Your task to perform on an android device: empty trash in google photos Image 0: 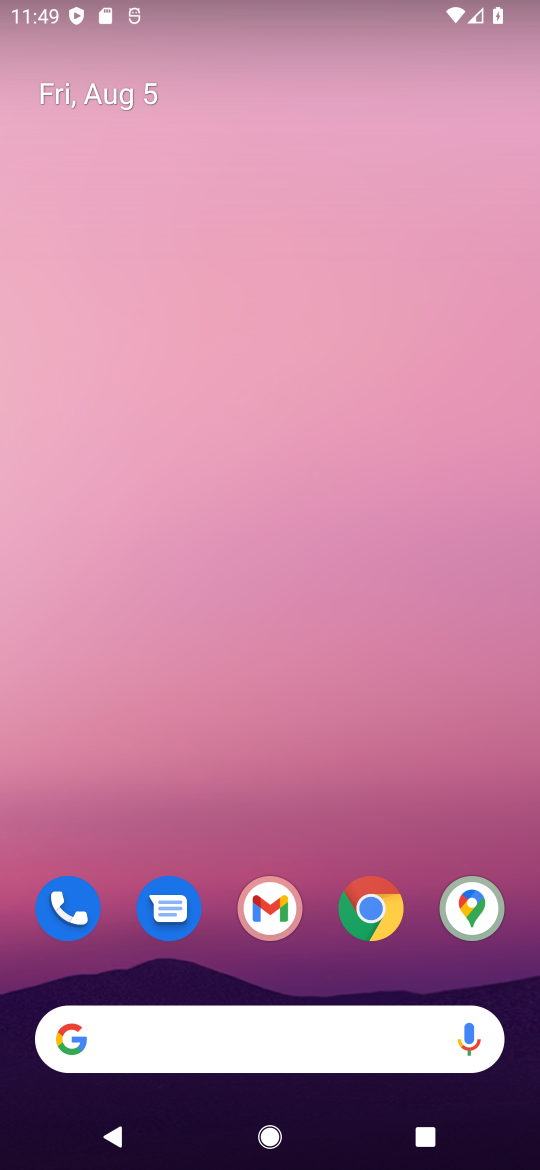
Step 0: drag from (315, 962) to (290, 218)
Your task to perform on an android device: empty trash in google photos Image 1: 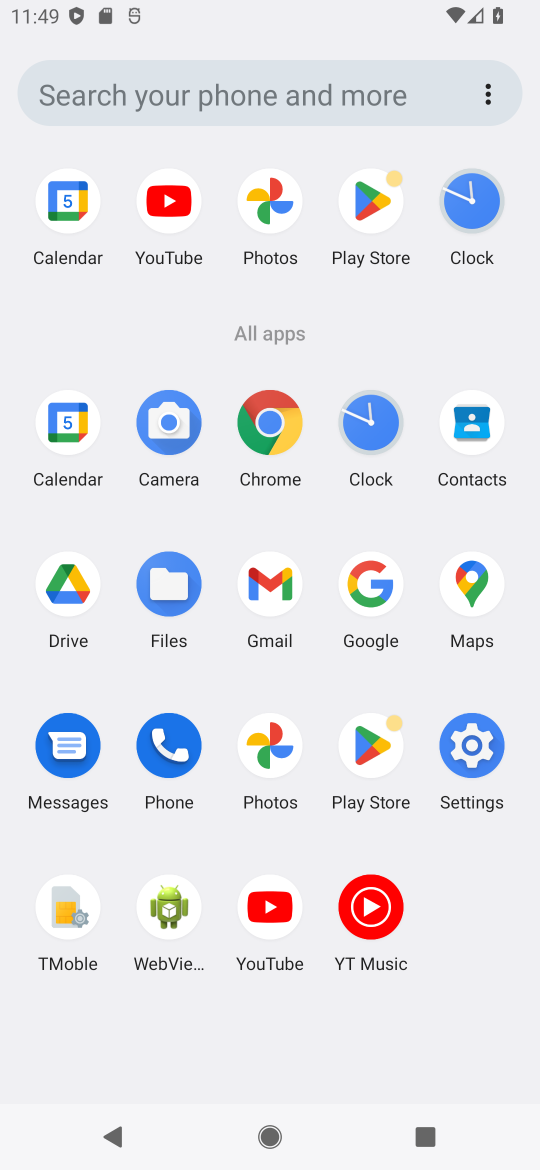
Step 1: click (268, 741)
Your task to perform on an android device: empty trash in google photos Image 2: 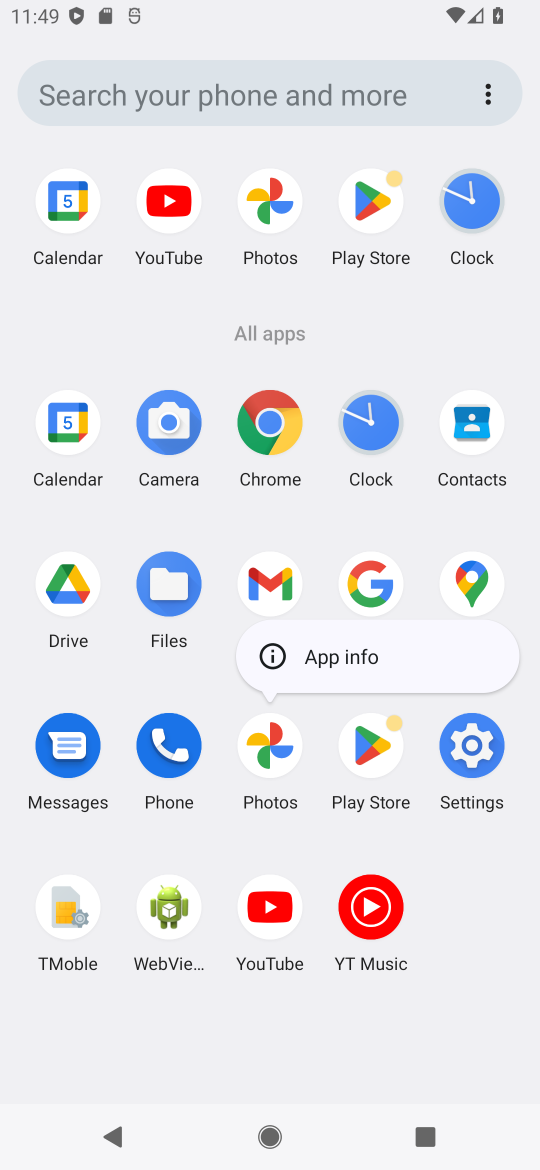
Step 2: click (268, 742)
Your task to perform on an android device: empty trash in google photos Image 3: 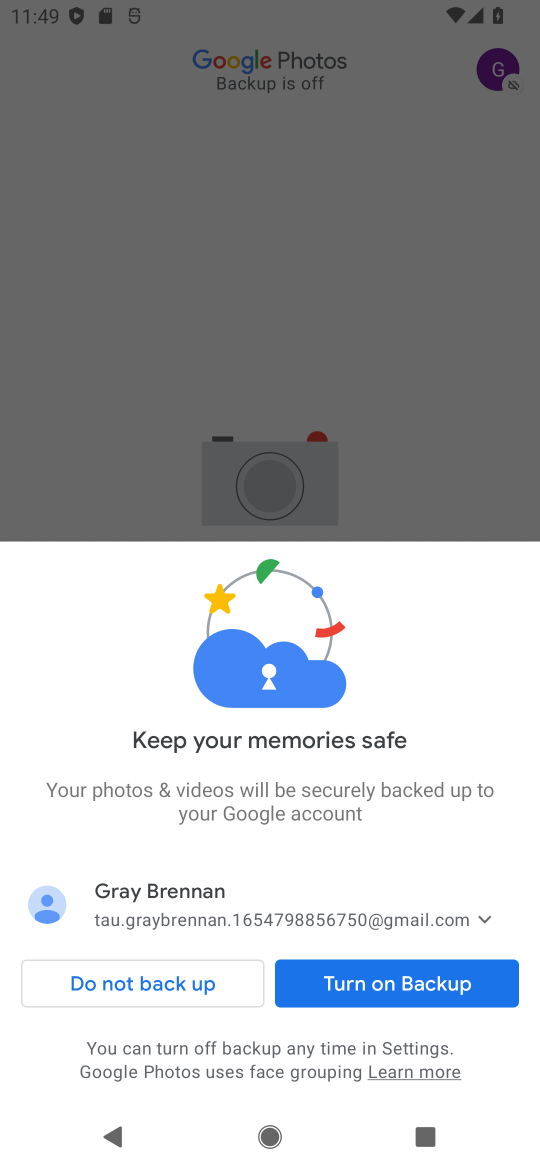
Step 3: click (358, 972)
Your task to perform on an android device: empty trash in google photos Image 4: 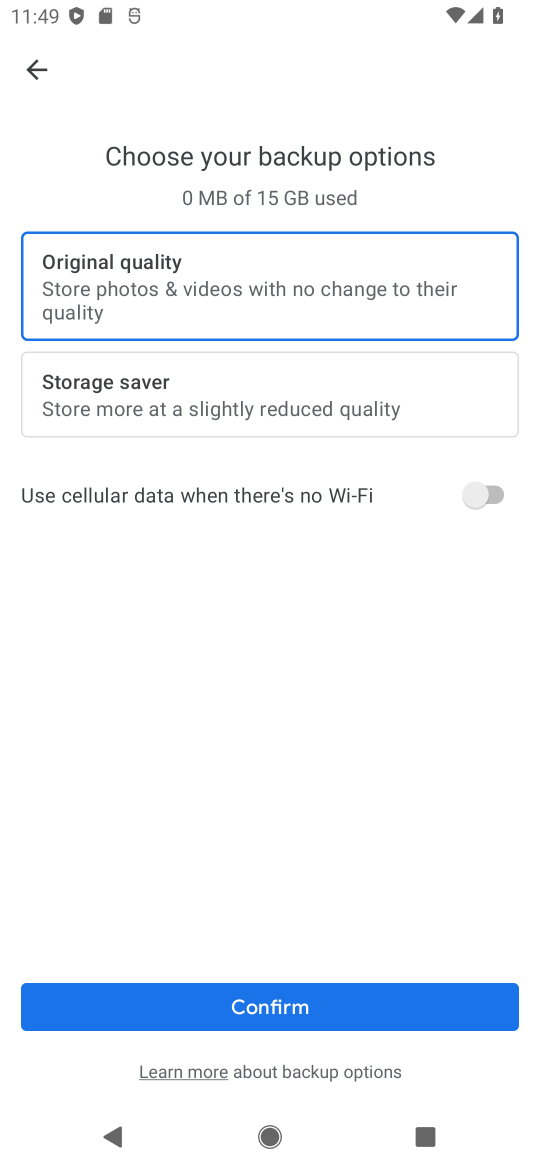
Step 4: click (309, 1000)
Your task to perform on an android device: empty trash in google photos Image 5: 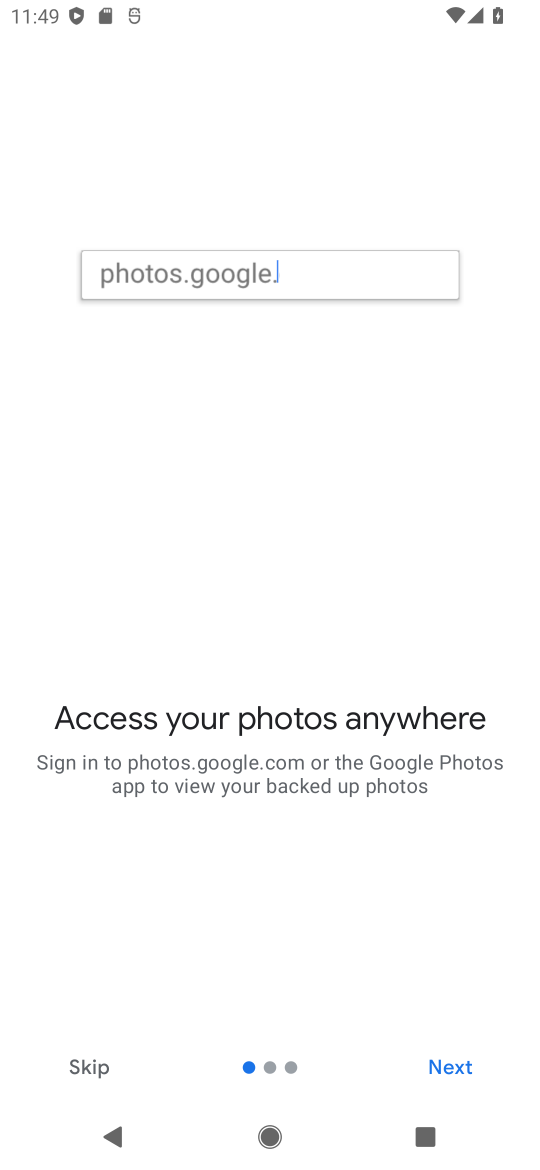
Step 5: click (456, 1041)
Your task to perform on an android device: empty trash in google photos Image 6: 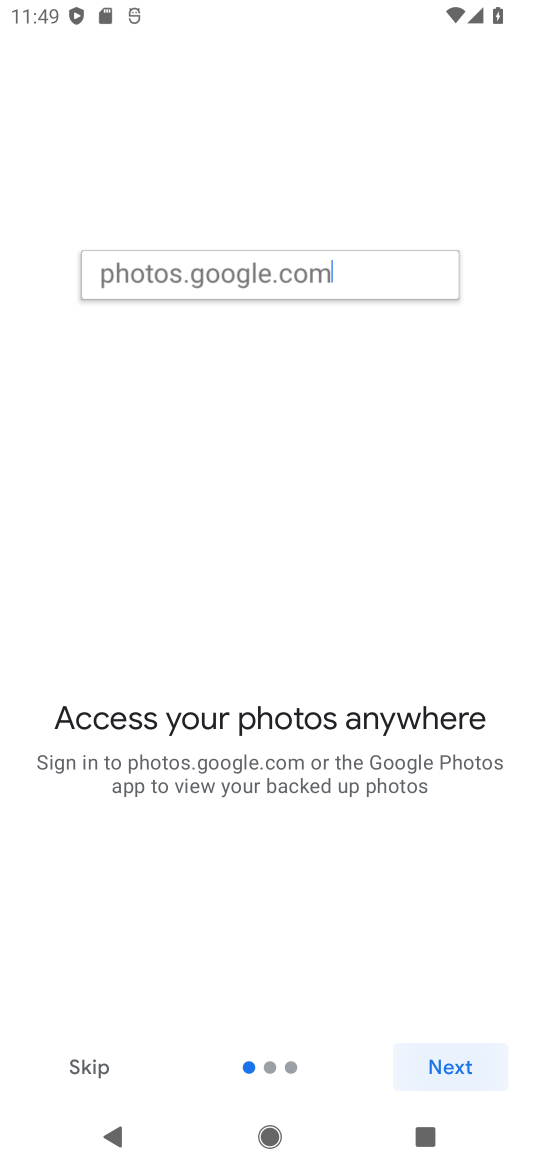
Step 6: click (456, 1041)
Your task to perform on an android device: empty trash in google photos Image 7: 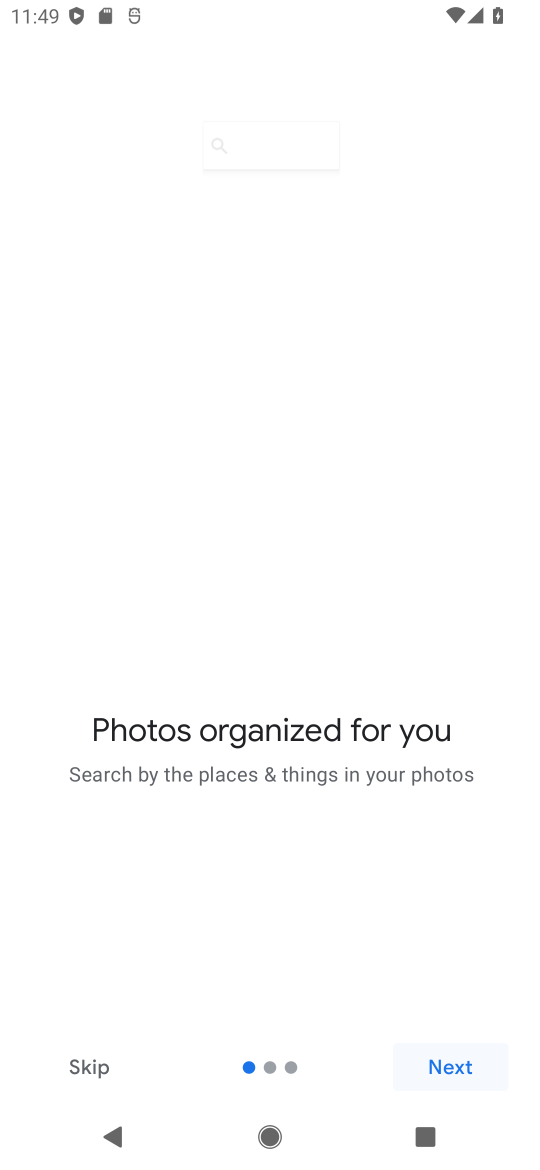
Step 7: click (456, 1039)
Your task to perform on an android device: empty trash in google photos Image 8: 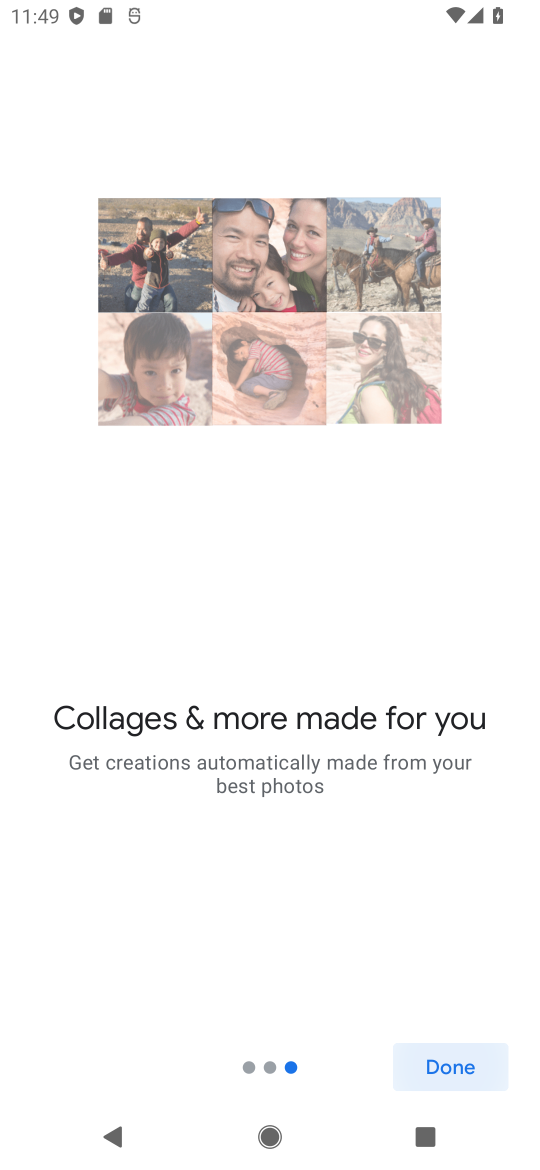
Step 8: click (456, 1039)
Your task to perform on an android device: empty trash in google photos Image 9: 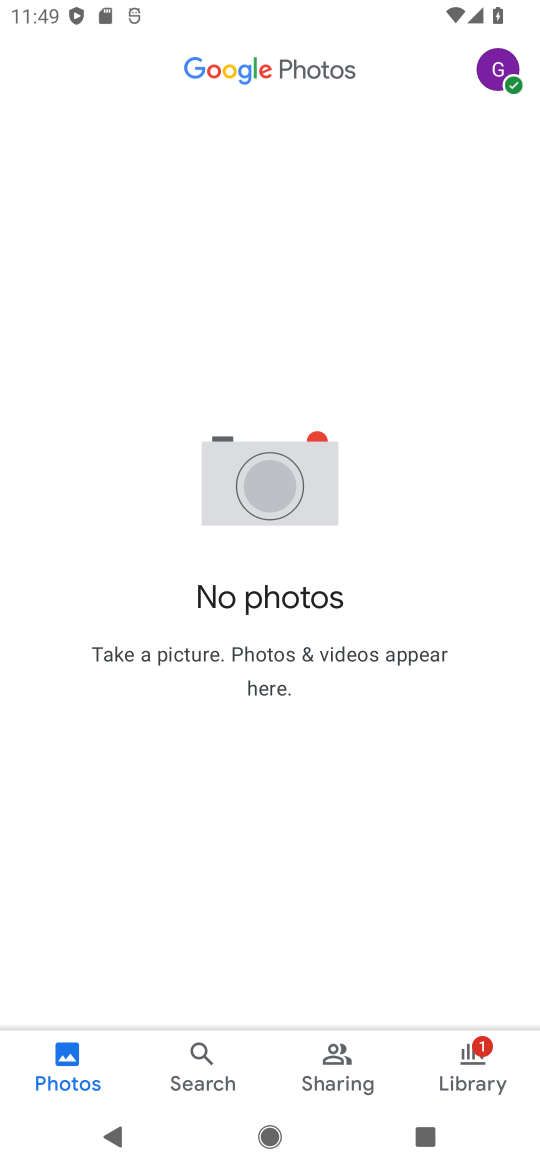
Step 9: click (468, 1082)
Your task to perform on an android device: empty trash in google photos Image 10: 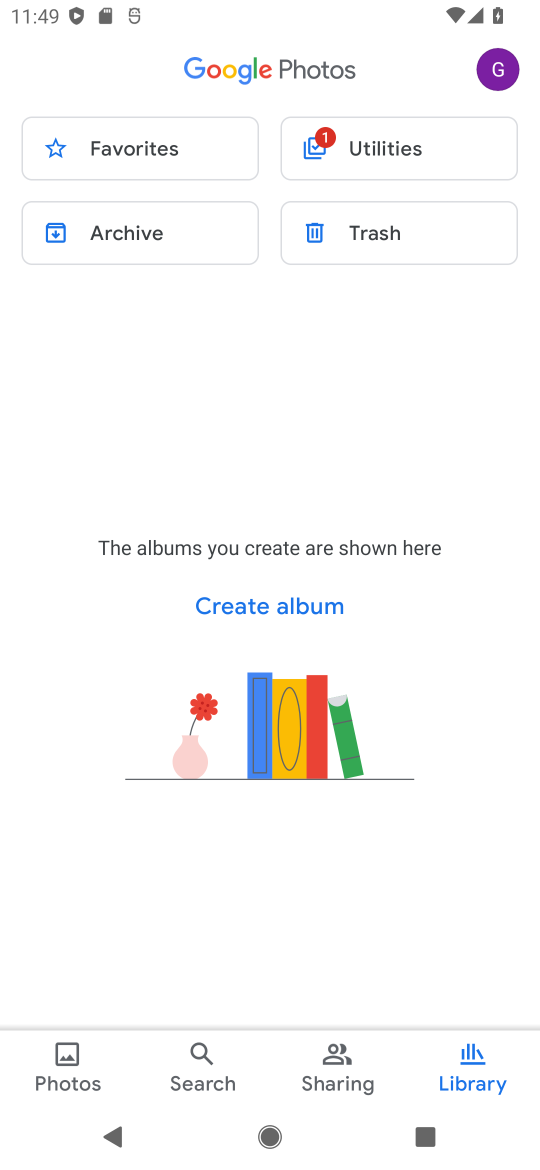
Step 10: click (423, 224)
Your task to perform on an android device: empty trash in google photos Image 11: 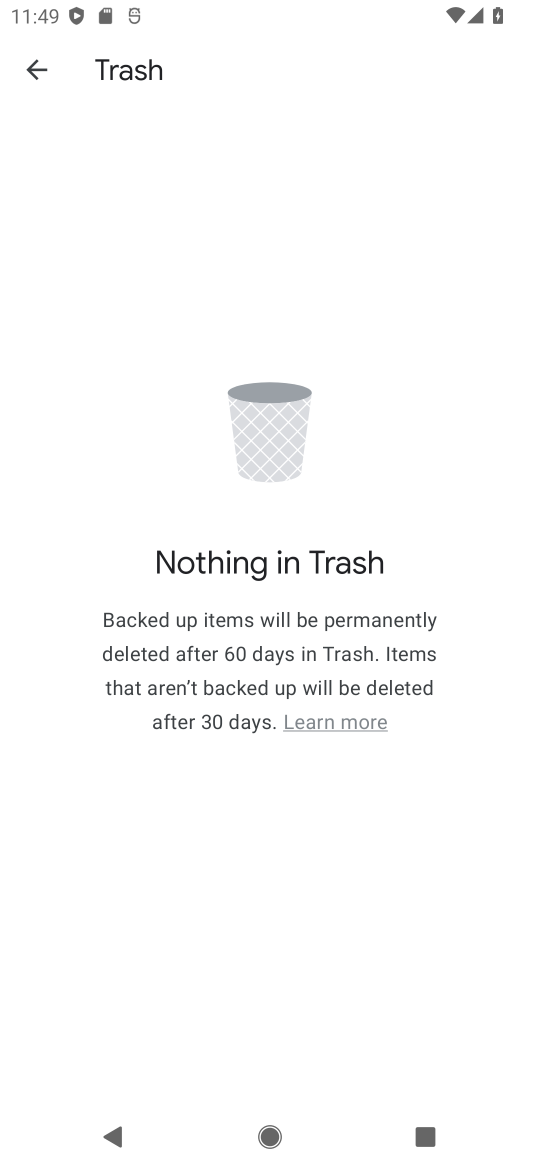
Step 11: task complete